Your task to perform on an android device: toggle pop-ups in chrome Image 0: 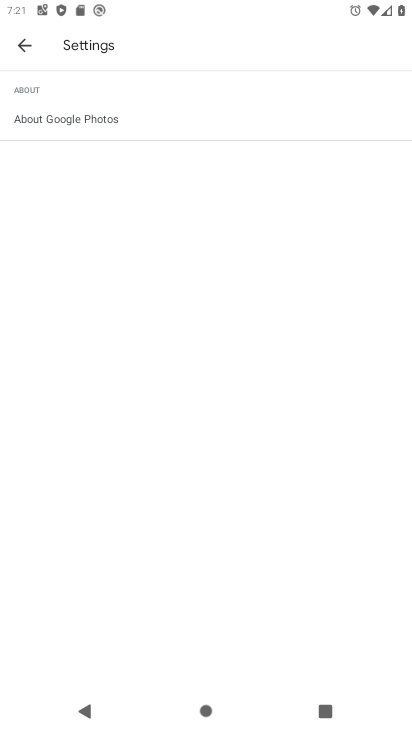
Step 0: press home button
Your task to perform on an android device: toggle pop-ups in chrome Image 1: 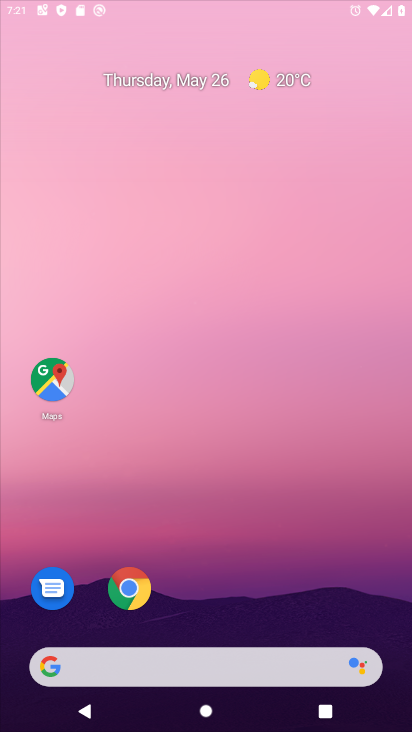
Step 1: drag from (345, 625) to (281, 53)
Your task to perform on an android device: toggle pop-ups in chrome Image 2: 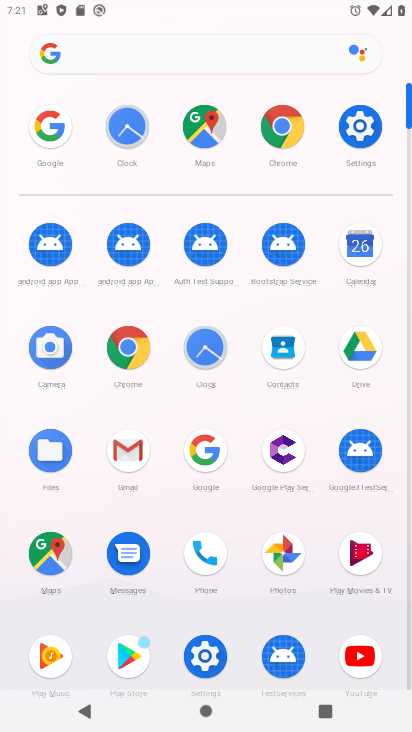
Step 2: click (297, 121)
Your task to perform on an android device: toggle pop-ups in chrome Image 3: 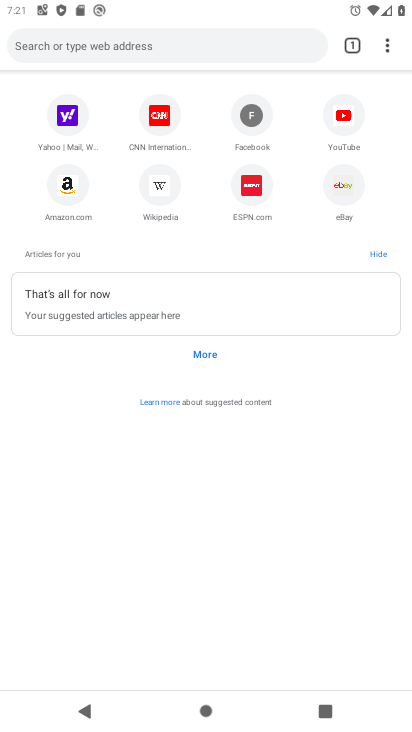
Step 3: click (383, 46)
Your task to perform on an android device: toggle pop-ups in chrome Image 4: 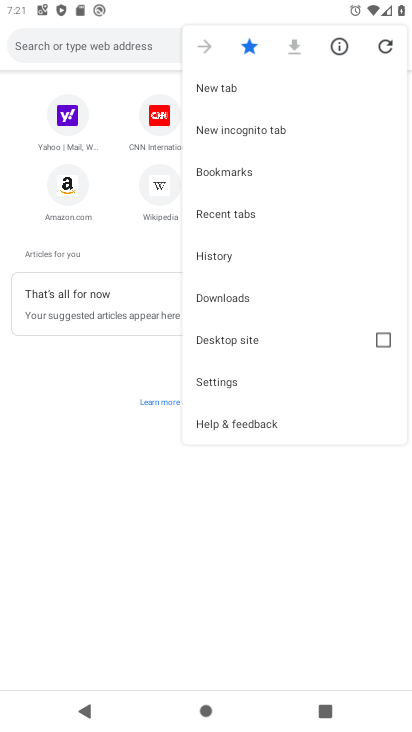
Step 4: click (235, 369)
Your task to perform on an android device: toggle pop-ups in chrome Image 5: 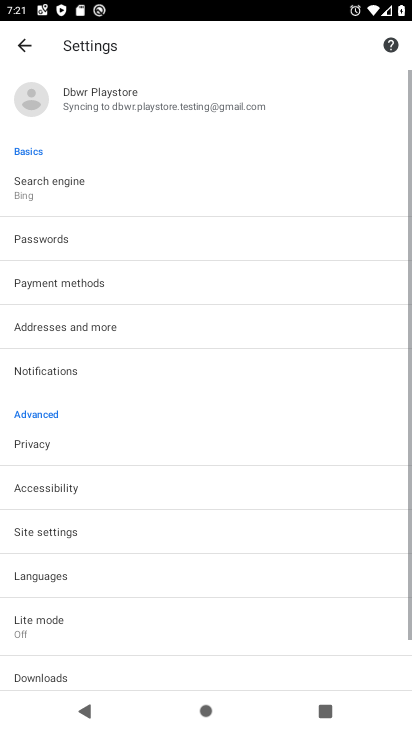
Step 5: click (92, 530)
Your task to perform on an android device: toggle pop-ups in chrome Image 6: 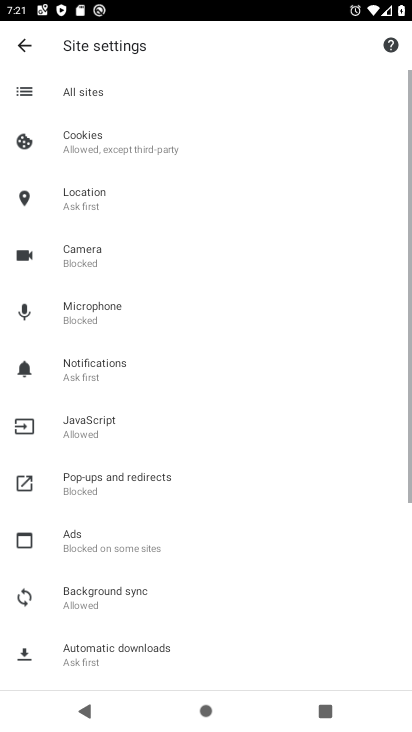
Step 6: click (98, 467)
Your task to perform on an android device: toggle pop-ups in chrome Image 7: 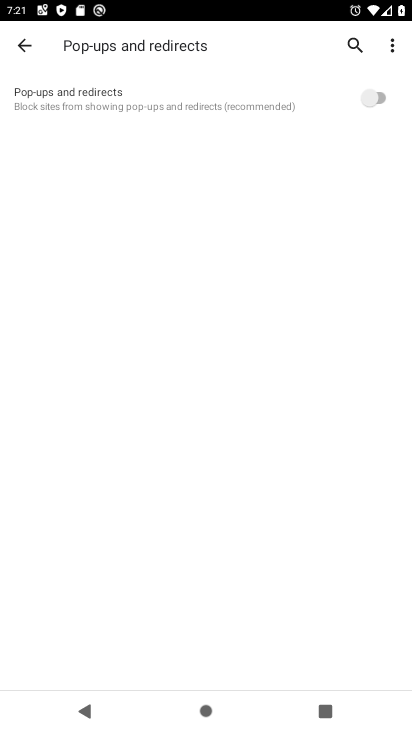
Step 7: click (371, 108)
Your task to perform on an android device: toggle pop-ups in chrome Image 8: 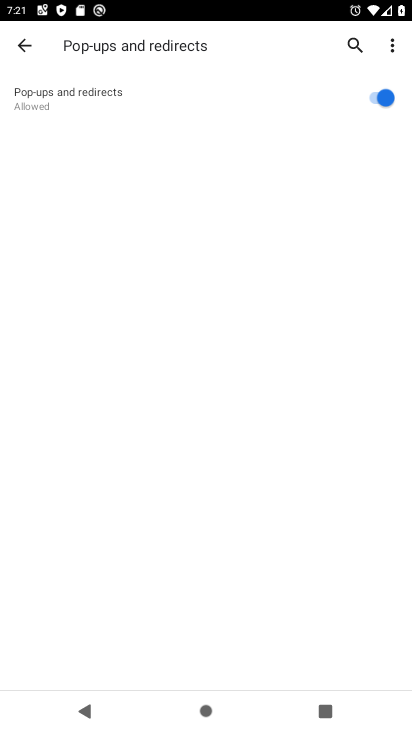
Step 8: task complete